Your task to perform on an android device: Find coffee shops on Maps Image 0: 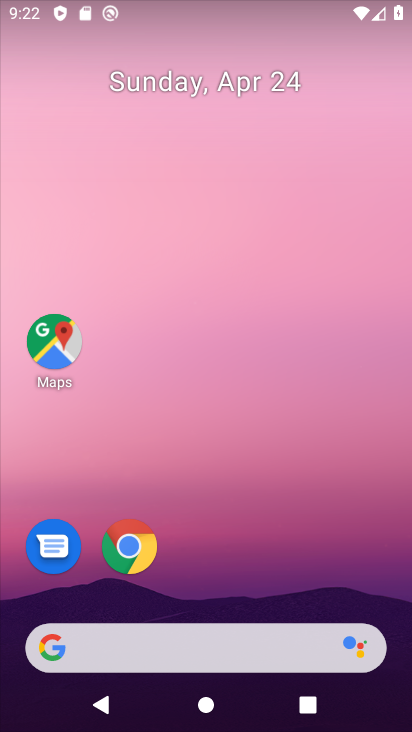
Step 0: drag from (257, 612) to (213, 72)
Your task to perform on an android device: Find coffee shops on Maps Image 1: 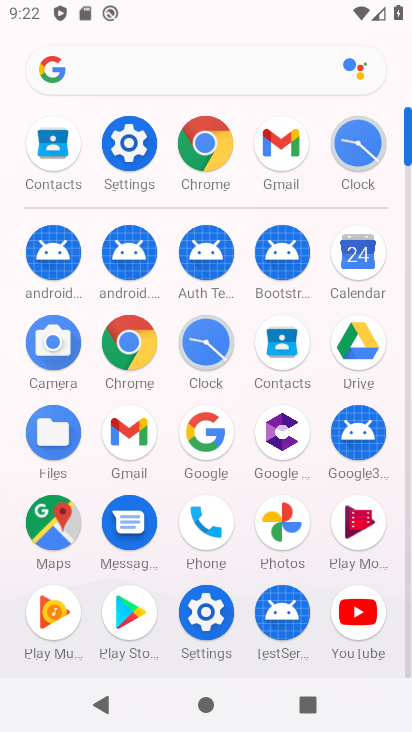
Step 1: click (49, 540)
Your task to perform on an android device: Find coffee shops on Maps Image 2: 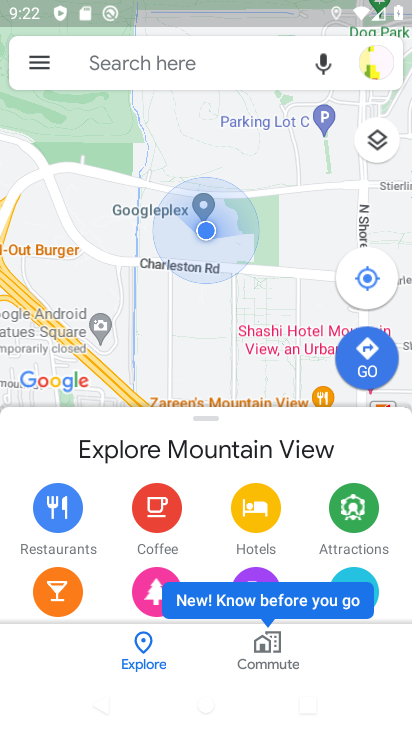
Step 2: click (213, 58)
Your task to perform on an android device: Find coffee shops on Maps Image 3: 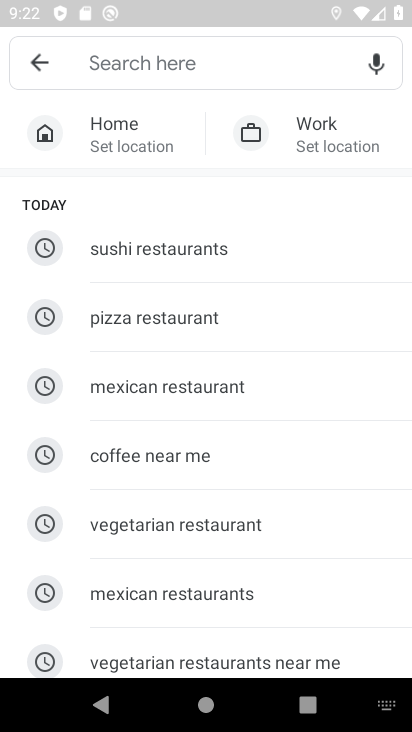
Step 3: click (181, 451)
Your task to perform on an android device: Find coffee shops on Maps Image 4: 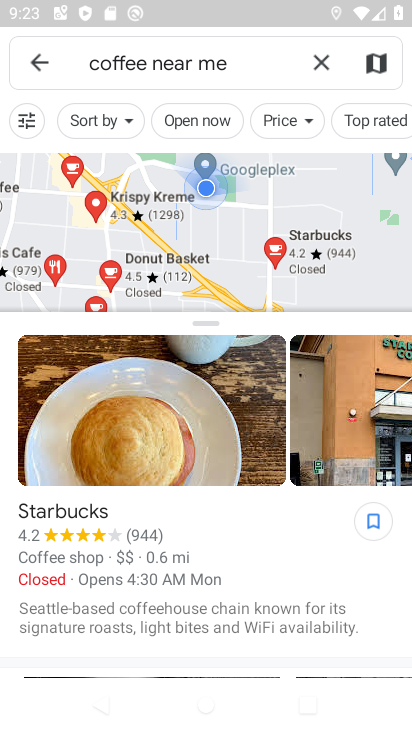
Step 4: task complete